Your task to perform on an android device: Go to calendar. Show me events next week Image 0: 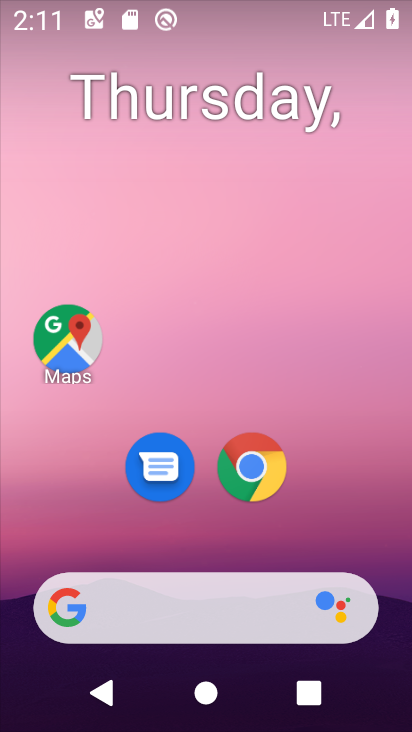
Step 0: drag from (209, 549) to (155, 1)
Your task to perform on an android device: Go to calendar. Show me events next week Image 1: 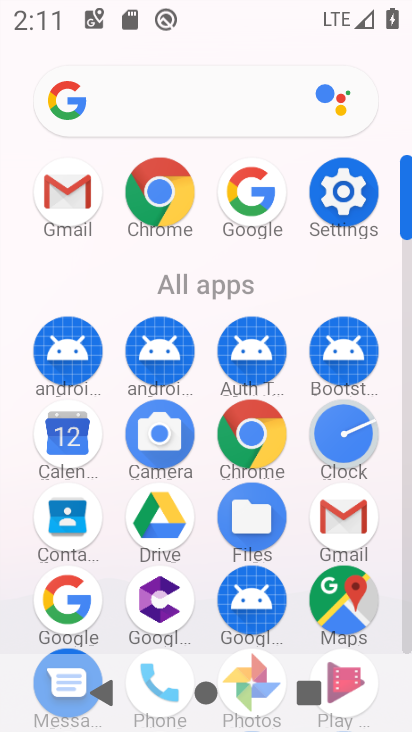
Step 1: click (70, 443)
Your task to perform on an android device: Go to calendar. Show me events next week Image 2: 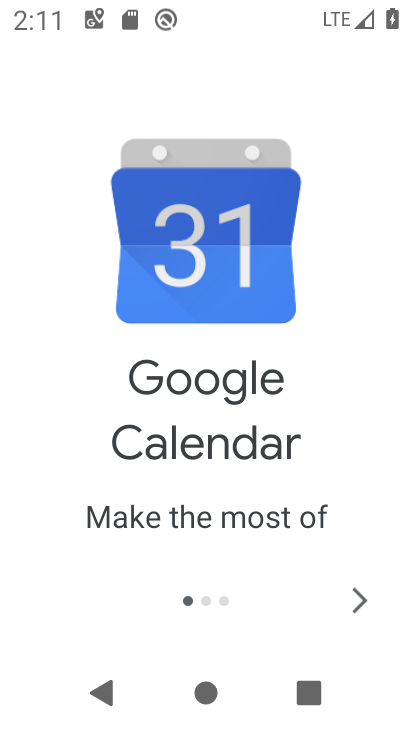
Step 2: click (360, 592)
Your task to perform on an android device: Go to calendar. Show me events next week Image 3: 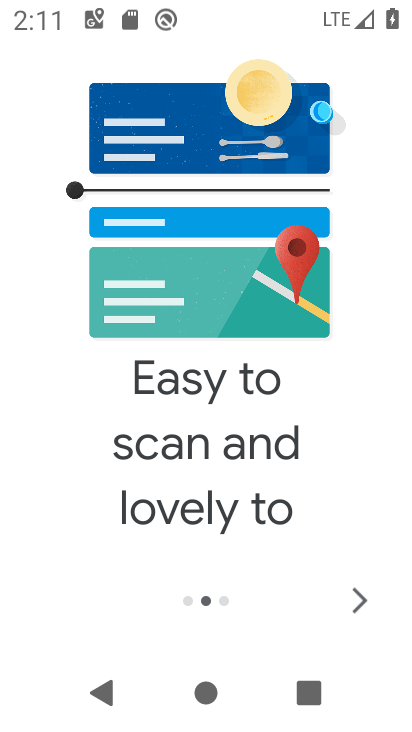
Step 3: click (368, 597)
Your task to perform on an android device: Go to calendar. Show me events next week Image 4: 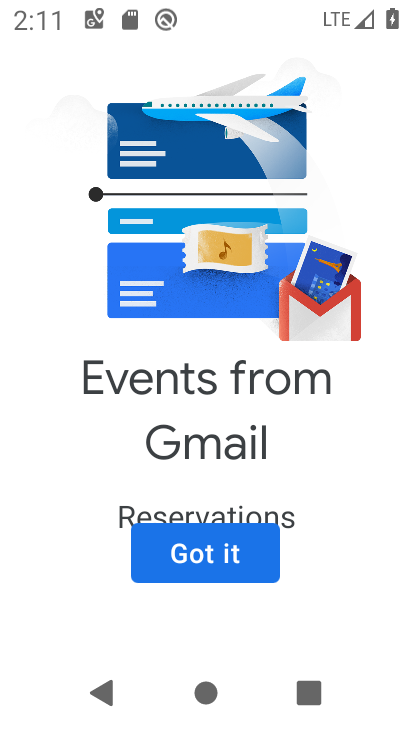
Step 4: click (235, 567)
Your task to perform on an android device: Go to calendar. Show me events next week Image 5: 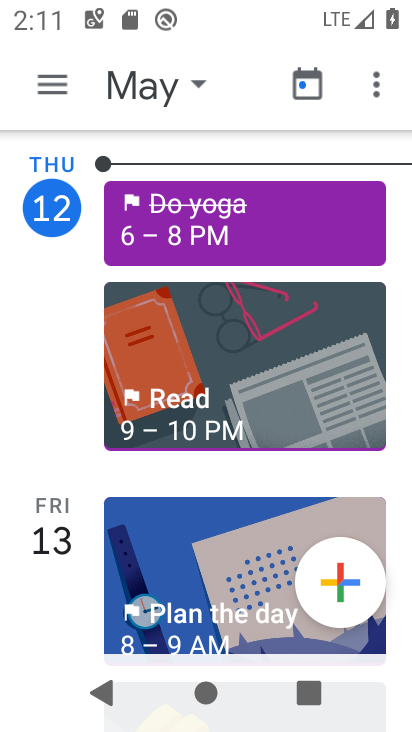
Step 5: click (57, 92)
Your task to perform on an android device: Go to calendar. Show me events next week Image 6: 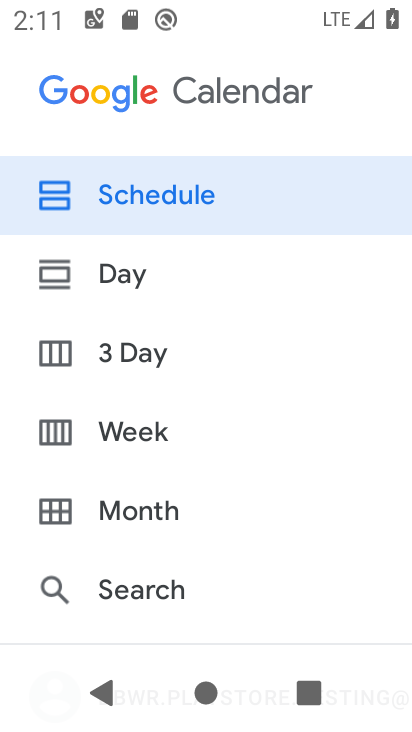
Step 6: drag from (146, 534) to (149, 98)
Your task to perform on an android device: Go to calendar. Show me events next week Image 7: 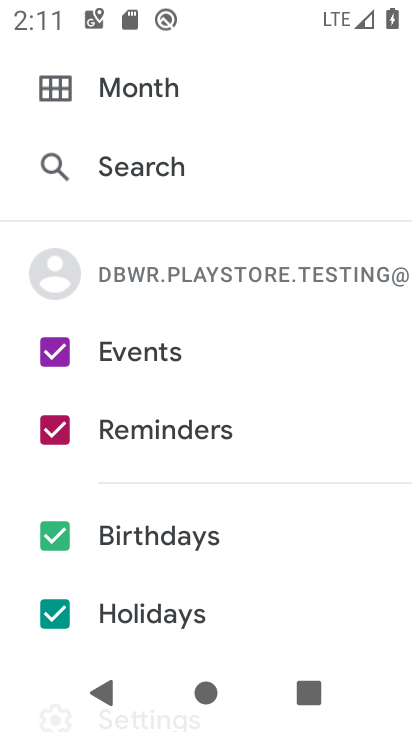
Step 7: drag from (157, 146) to (153, 359)
Your task to perform on an android device: Go to calendar. Show me events next week Image 8: 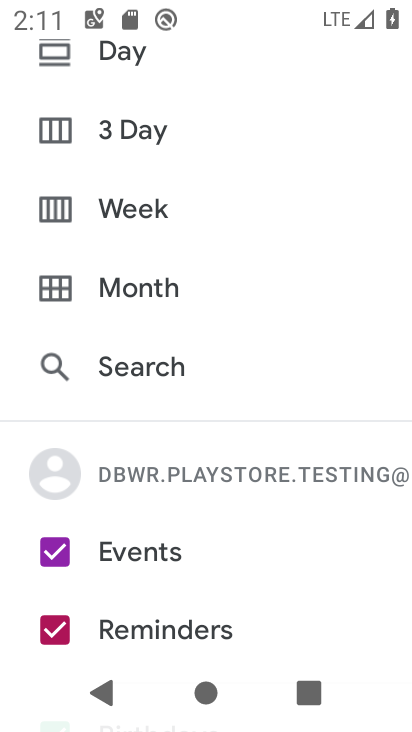
Step 8: click (147, 226)
Your task to perform on an android device: Go to calendar. Show me events next week Image 9: 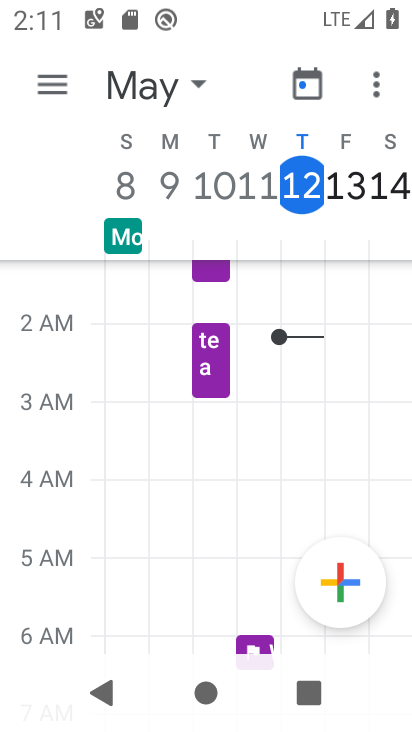
Step 9: task complete